Your task to perform on an android device: Open Google Image 0: 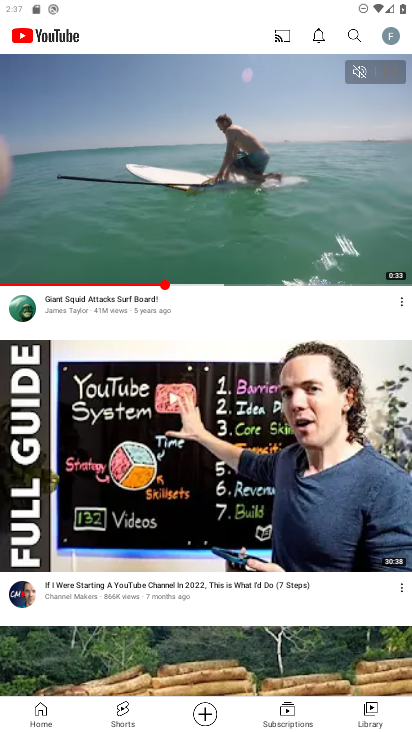
Step 0: press back button
Your task to perform on an android device: Open Google Image 1: 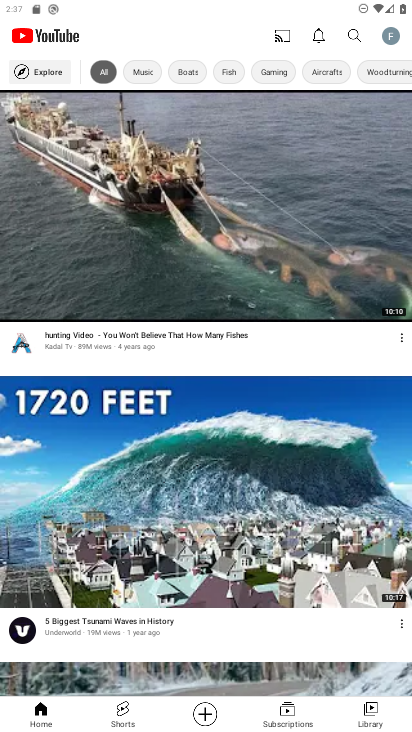
Step 1: press back button
Your task to perform on an android device: Open Google Image 2: 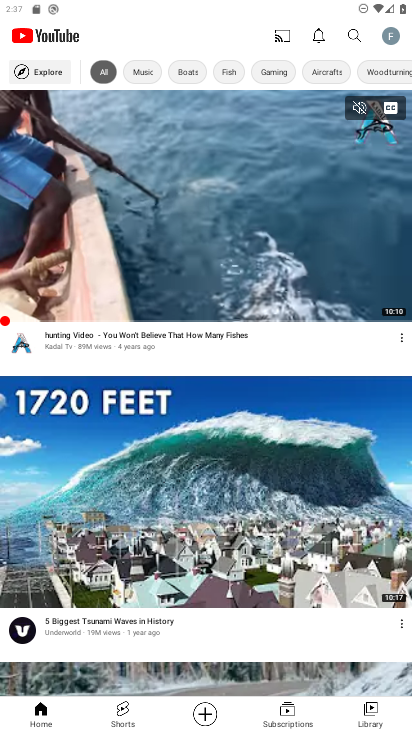
Step 2: press home button
Your task to perform on an android device: Open Google Image 3: 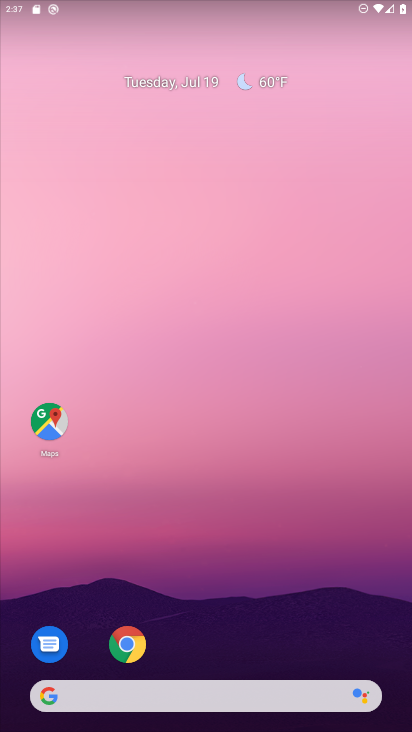
Step 3: drag from (353, 291) to (329, 58)
Your task to perform on an android device: Open Google Image 4: 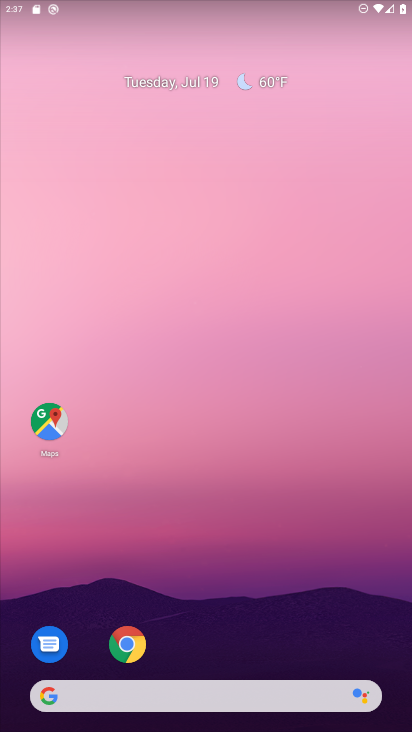
Step 4: drag from (396, 678) to (314, 107)
Your task to perform on an android device: Open Google Image 5: 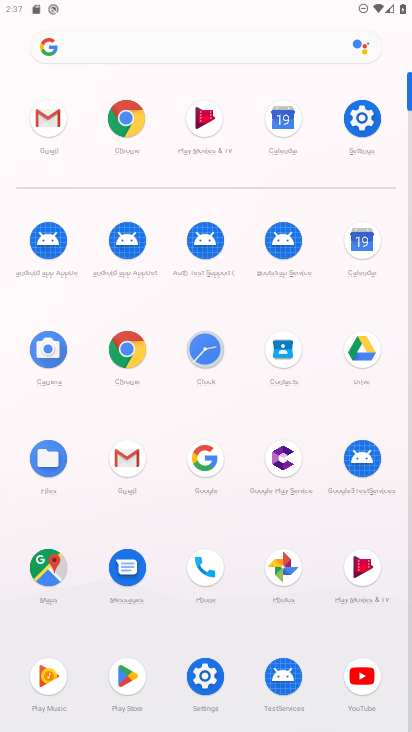
Step 5: click (200, 457)
Your task to perform on an android device: Open Google Image 6: 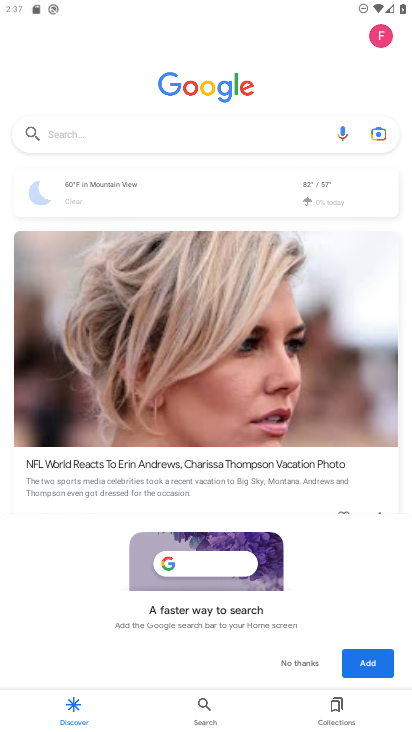
Step 6: task complete